Your task to perform on an android device: Open display settings Image 0: 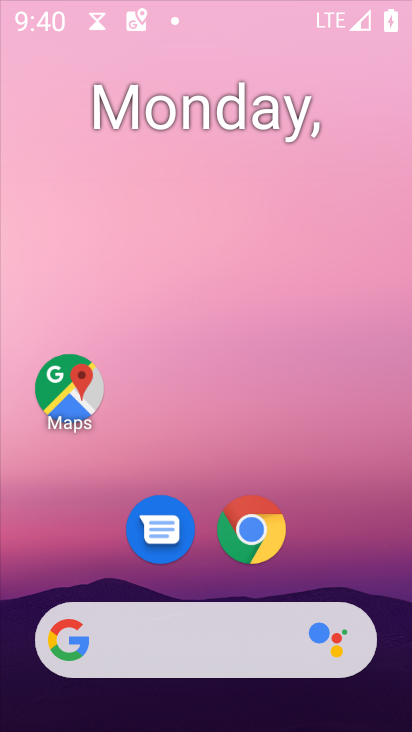
Step 0: click (160, 220)
Your task to perform on an android device: Open display settings Image 1: 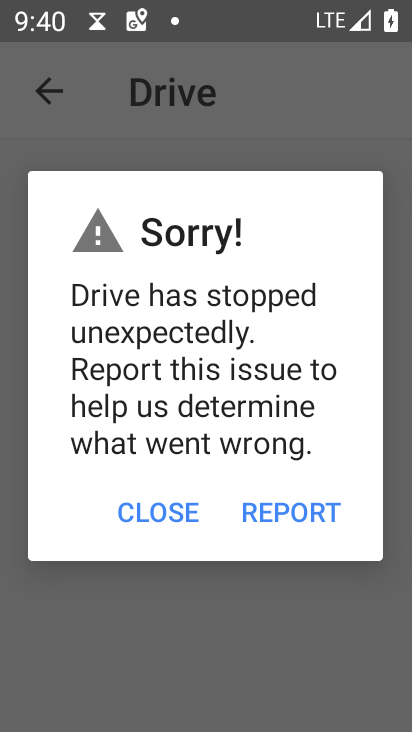
Step 1: click (174, 512)
Your task to perform on an android device: Open display settings Image 2: 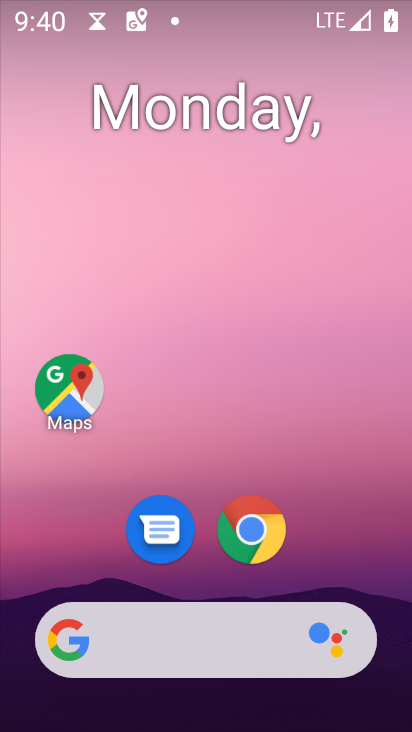
Step 2: drag from (249, 668) to (173, 170)
Your task to perform on an android device: Open display settings Image 3: 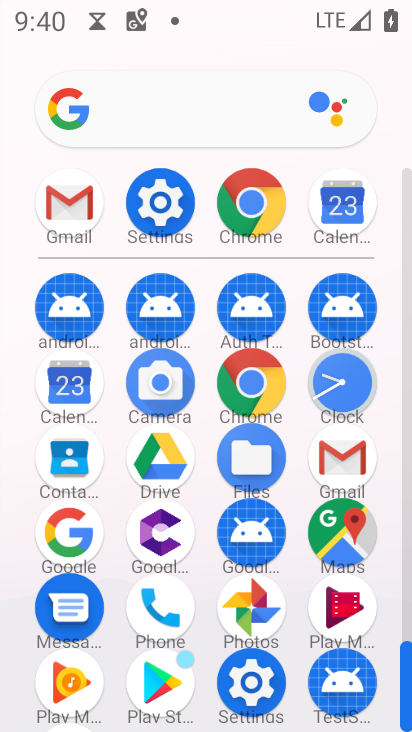
Step 3: click (158, 191)
Your task to perform on an android device: Open display settings Image 4: 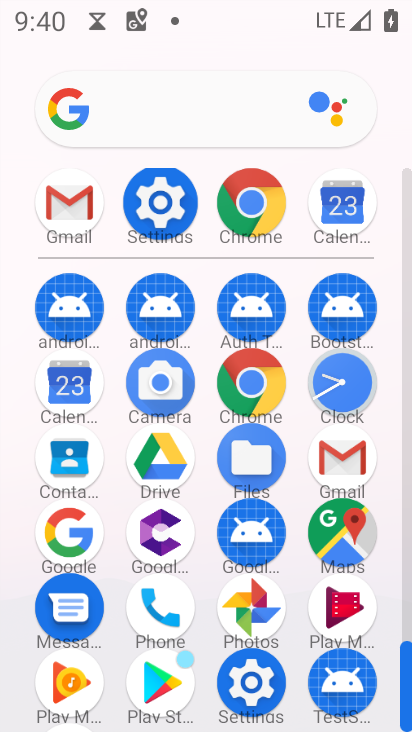
Step 4: click (158, 192)
Your task to perform on an android device: Open display settings Image 5: 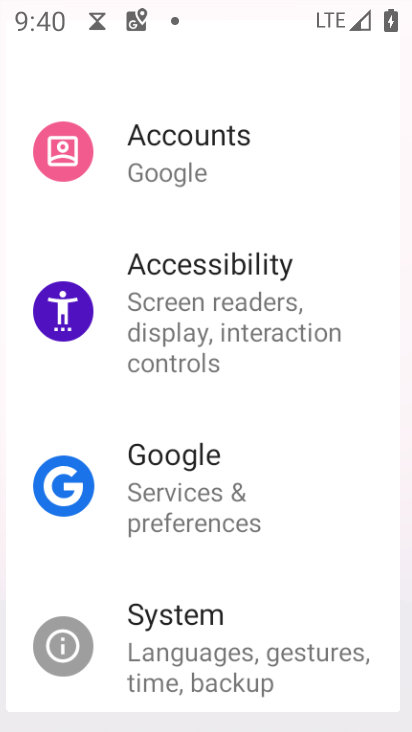
Step 5: click (165, 195)
Your task to perform on an android device: Open display settings Image 6: 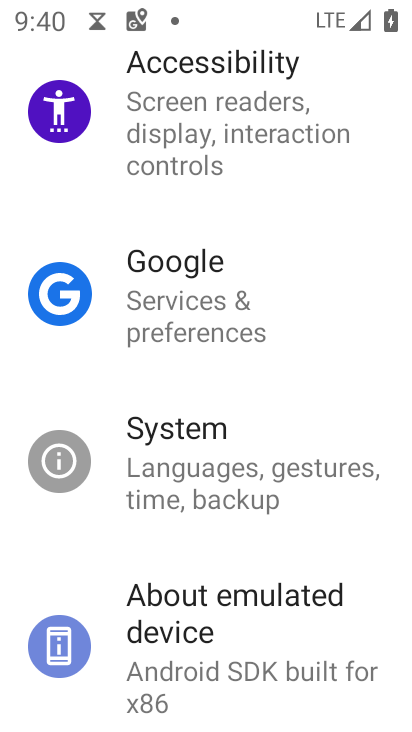
Step 6: click (167, 195)
Your task to perform on an android device: Open display settings Image 7: 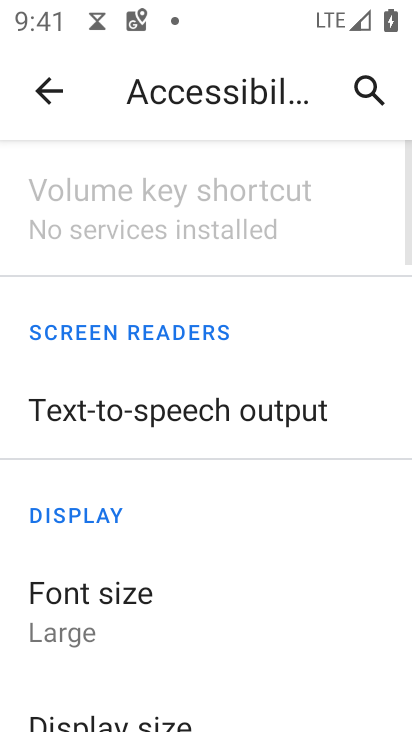
Step 7: click (35, 84)
Your task to perform on an android device: Open display settings Image 8: 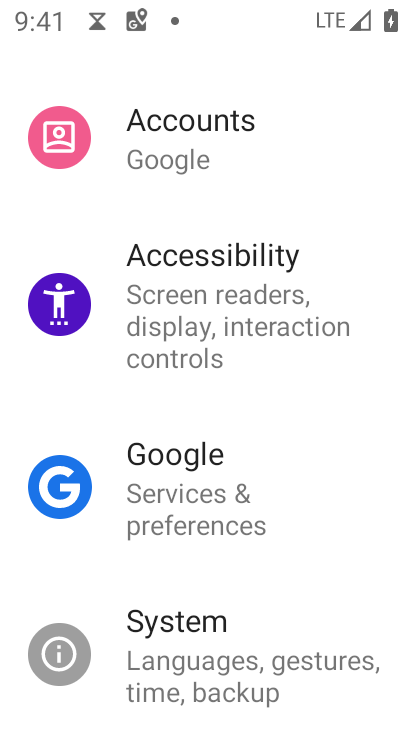
Step 8: drag from (169, 250) to (214, 439)
Your task to perform on an android device: Open display settings Image 9: 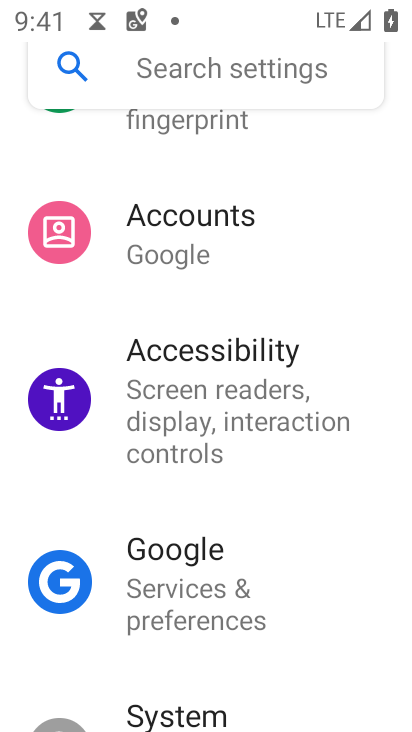
Step 9: drag from (192, 199) to (231, 462)
Your task to perform on an android device: Open display settings Image 10: 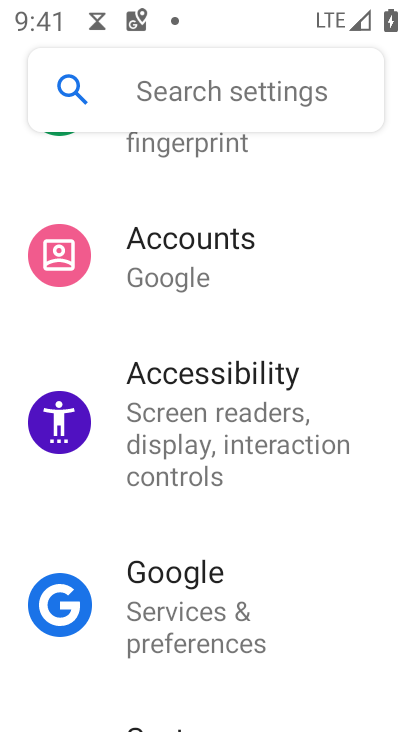
Step 10: drag from (193, 240) to (247, 408)
Your task to perform on an android device: Open display settings Image 11: 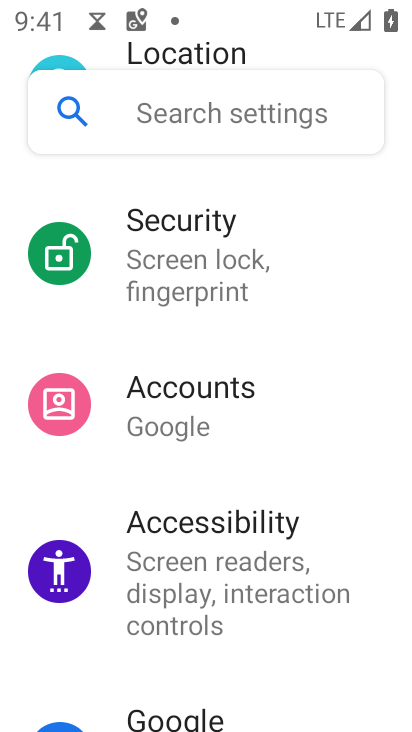
Step 11: drag from (205, 291) to (242, 520)
Your task to perform on an android device: Open display settings Image 12: 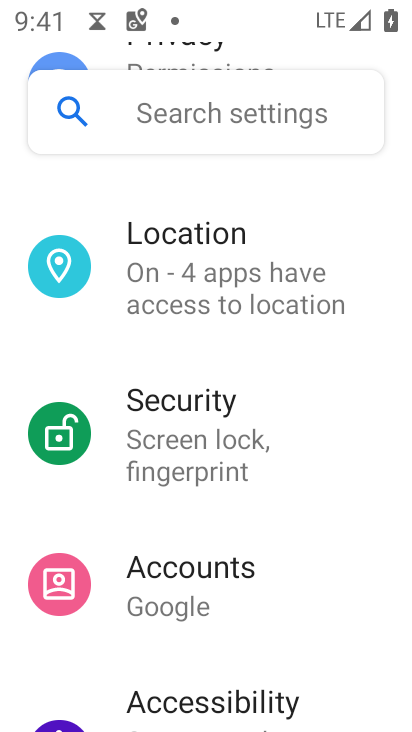
Step 12: drag from (142, 283) to (185, 471)
Your task to perform on an android device: Open display settings Image 13: 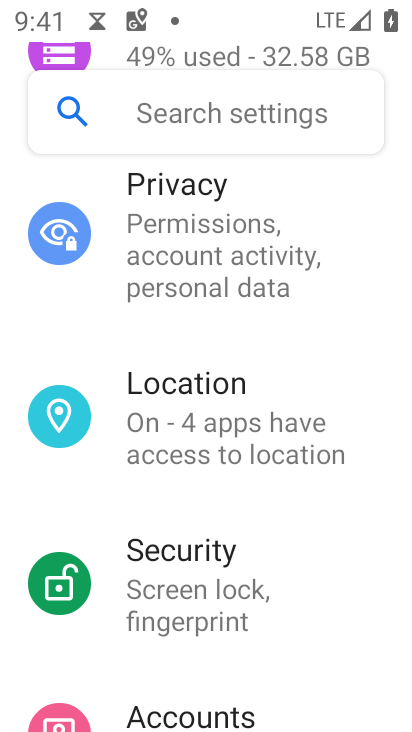
Step 13: drag from (181, 323) to (222, 562)
Your task to perform on an android device: Open display settings Image 14: 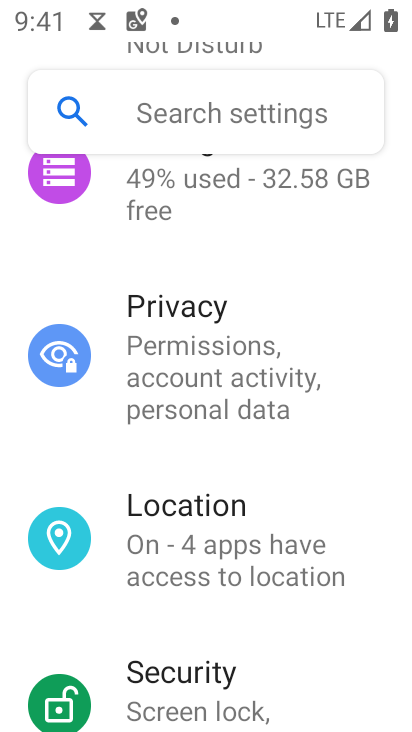
Step 14: drag from (174, 262) to (216, 561)
Your task to perform on an android device: Open display settings Image 15: 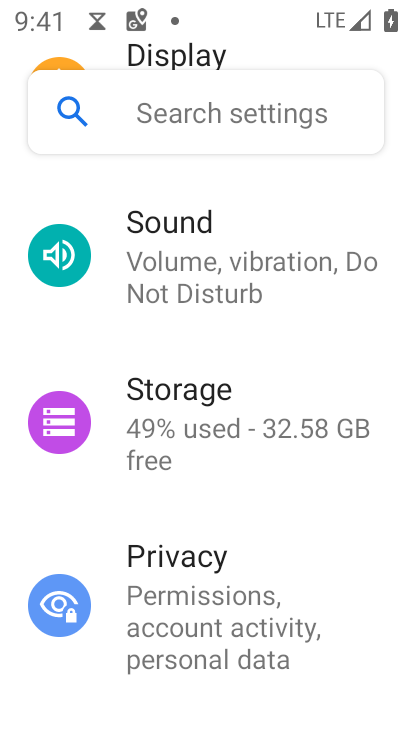
Step 15: drag from (175, 281) to (244, 606)
Your task to perform on an android device: Open display settings Image 16: 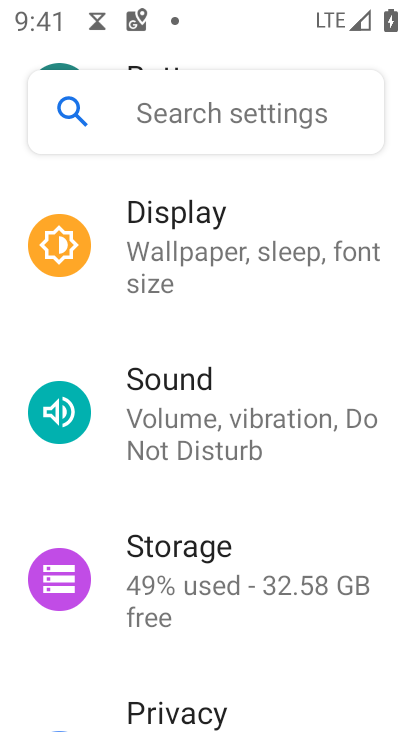
Step 16: drag from (188, 300) to (248, 571)
Your task to perform on an android device: Open display settings Image 17: 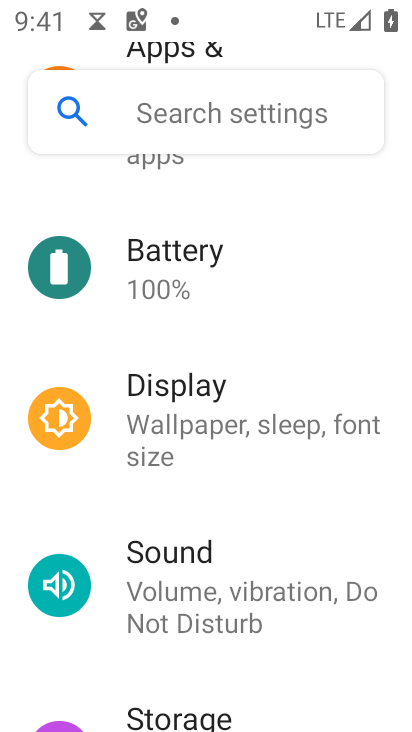
Step 17: drag from (259, 552) to (284, 635)
Your task to perform on an android device: Open display settings Image 18: 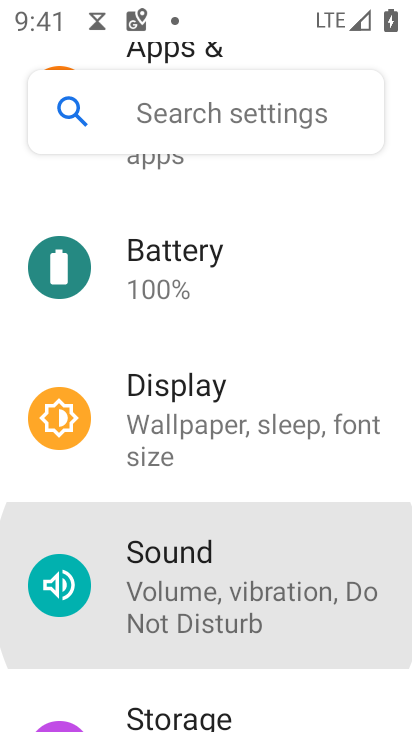
Step 18: drag from (190, 260) to (206, 596)
Your task to perform on an android device: Open display settings Image 19: 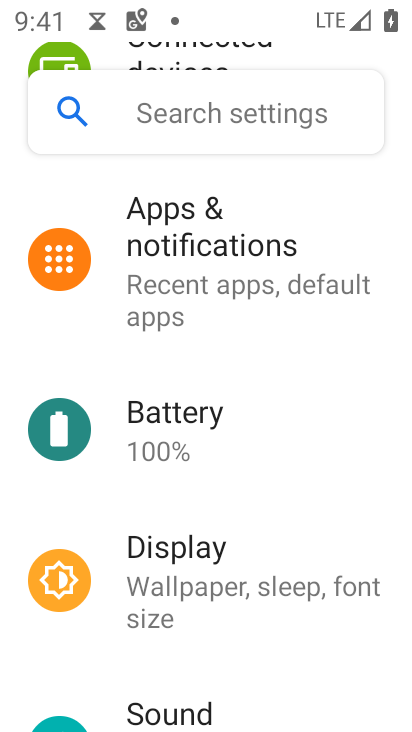
Step 19: drag from (150, 213) to (158, 481)
Your task to perform on an android device: Open display settings Image 20: 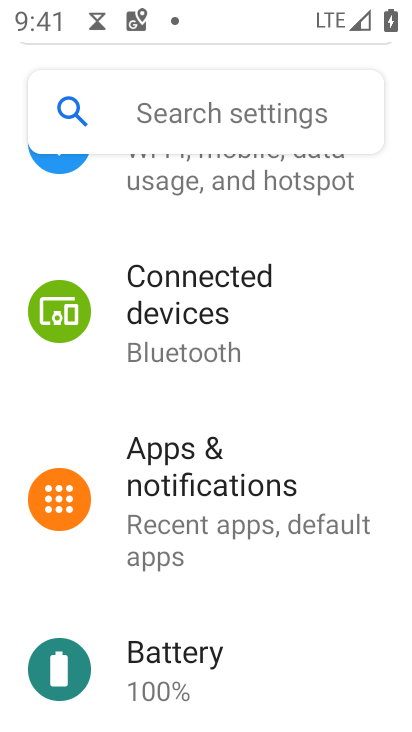
Step 20: drag from (196, 400) to (206, 564)
Your task to perform on an android device: Open display settings Image 21: 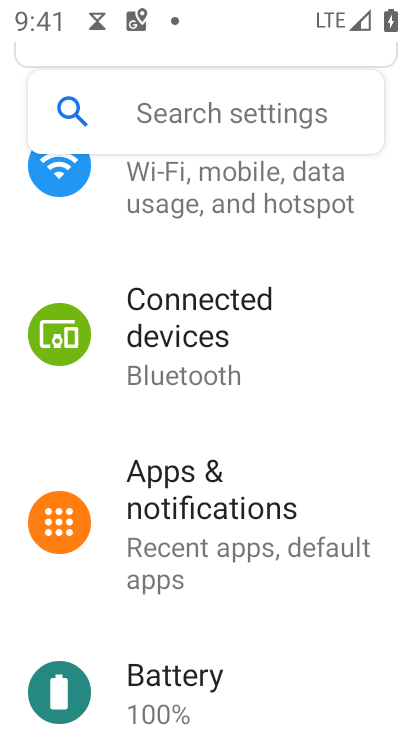
Step 21: drag from (240, 601) to (180, 315)
Your task to perform on an android device: Open display settings Image 22: 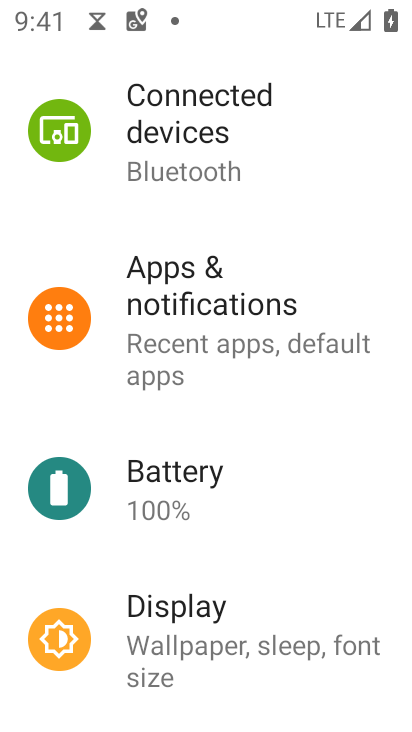
Step 22: drag from (220, 510) to (180, 287)
Your task to perform on an android device: Open display settings Image 23: 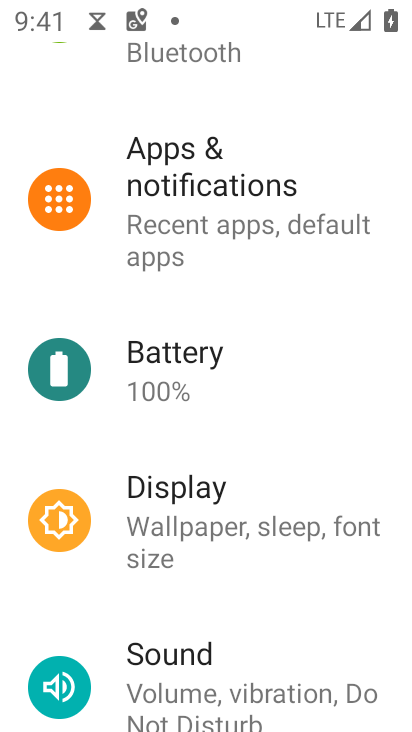
Step 23: click (183, 511)
Your task to perform on an android device: Open display settings Image 24: 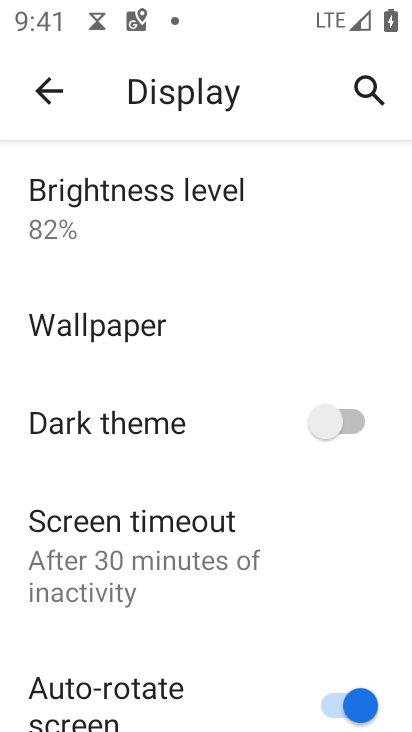
Step 24: task complete